Your task to perform on an android device: change keyboard looks Image 0: 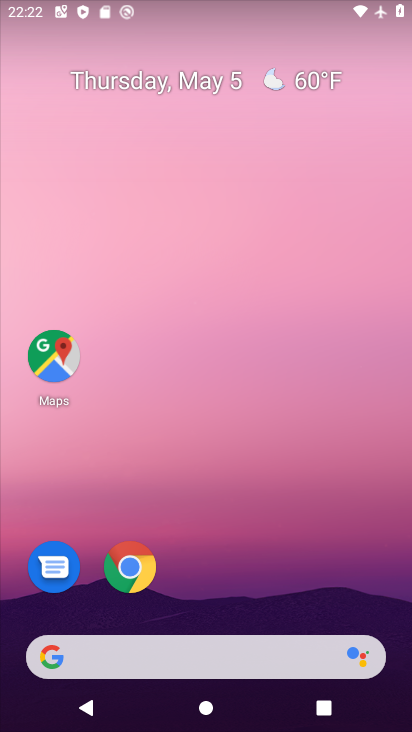
Step 0: drag from (212, 494) to (212, 205)
Your task to perform on an android device: change keyboard looks Image 1: 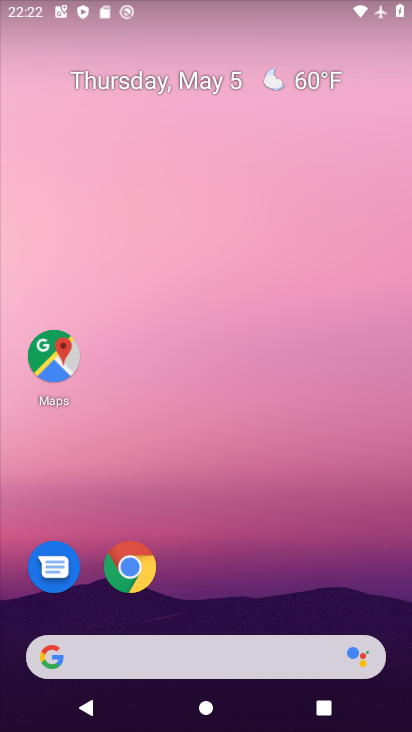
Step 1: drag from (213, 600) to (230, 104)
Your task to perform on an android device: change keyboard looks Image 2: 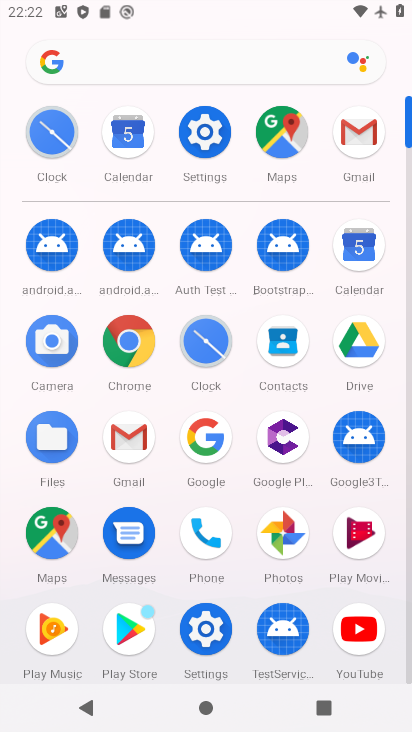
Step 2: click (225, 141)
Your task to perform on an android device: change keyboard looks Image 3: 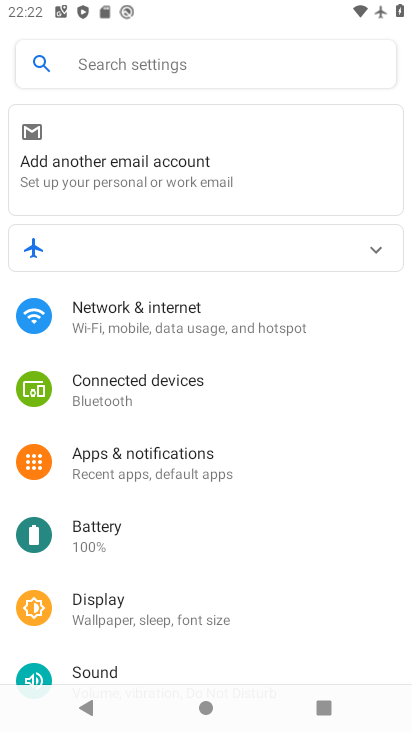
Step 3: drag from (189, 631) to (191, 174)
Your task to perform on an android device: change keyboard looks Image 4: 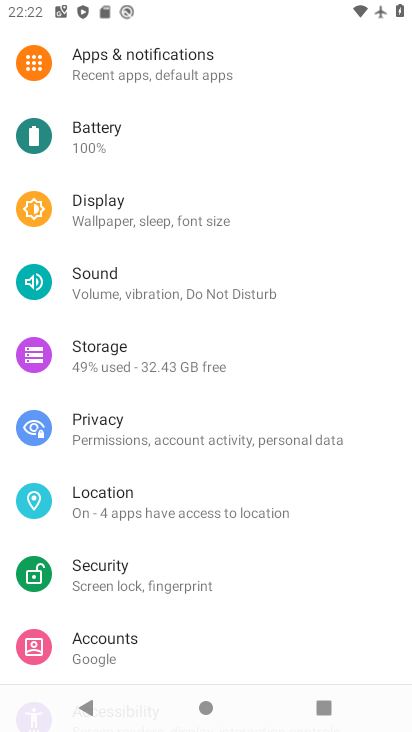
Step 4: drag from (211, 562) to (219, 157)
Your task to perform on an android device: change keyboard looks Image 5: 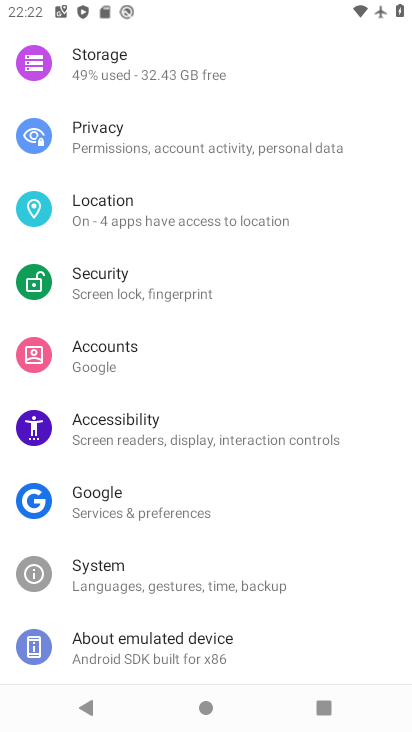
Step 5: click (172, 581)
Your task to perform on an android device: change keyboard looks Image 6: 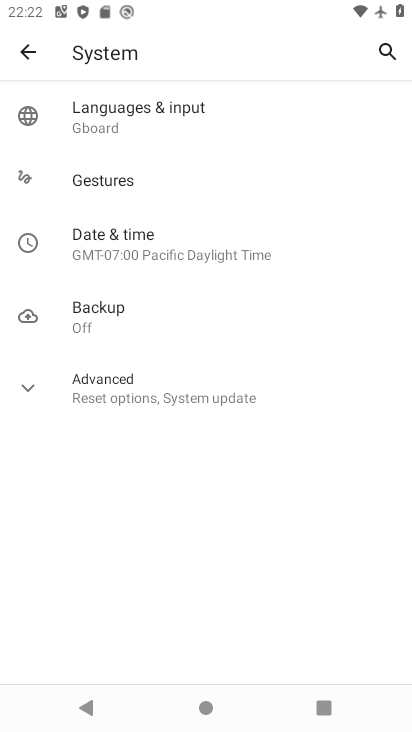
Step 6: click (119, 124)
Your task to perform on an android device: change keyboard looks Image 7: 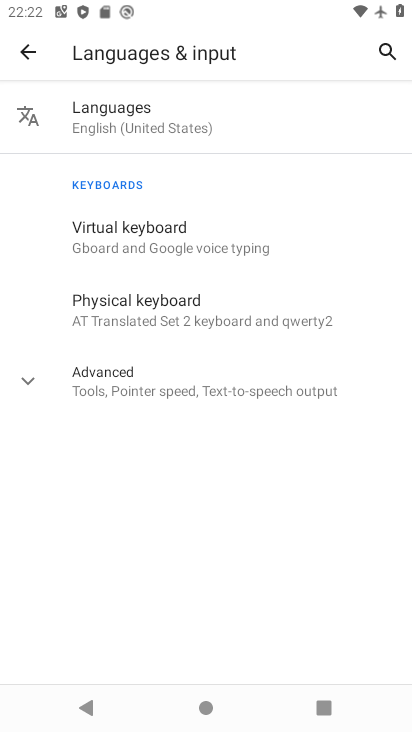
Step 7: click (144, 218)
Your task to perform on an android device: change keyboard looks Image 8: 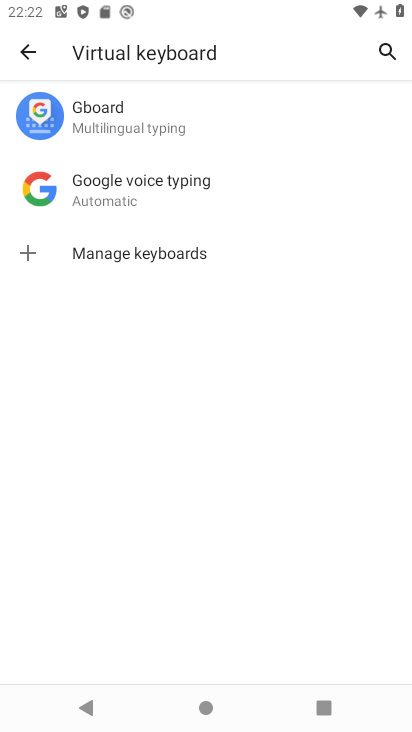
Step 8: click (132, 131)
Your task to perform on an android device: change keyboard looks Image 9: 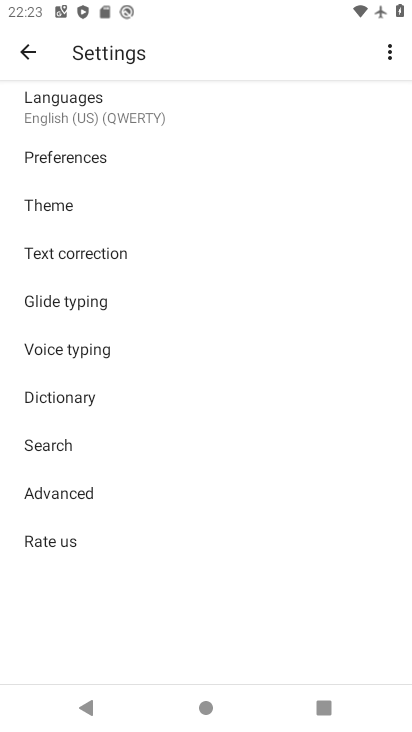
Step 9: click (85, 210)
Your task to perform on an android device: change keyboard looks Image 10: 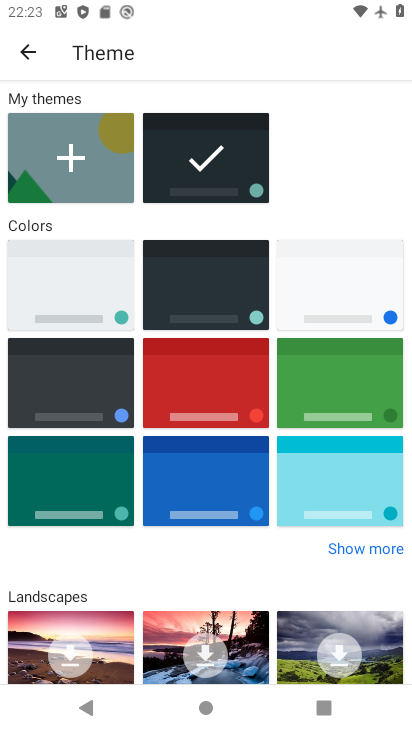
Step 10: click (322, 274)
Your task to perform on an android device: change keyboard looks Image 11: 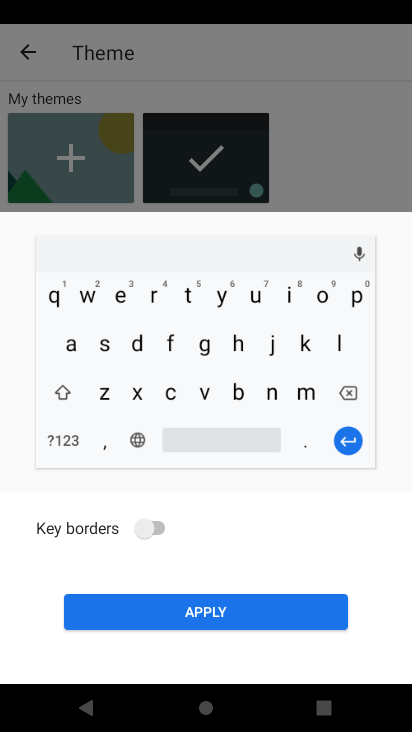
Step 11: click (279, 627)
Your task to perform on an android device: change keyboard looks Image 12: 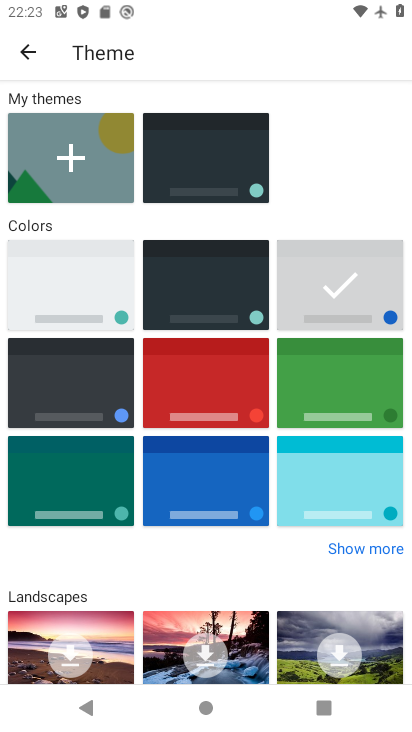
Step 12: task complete